Your task to perform on an android device: check the backup settings in the google photos Image 0: 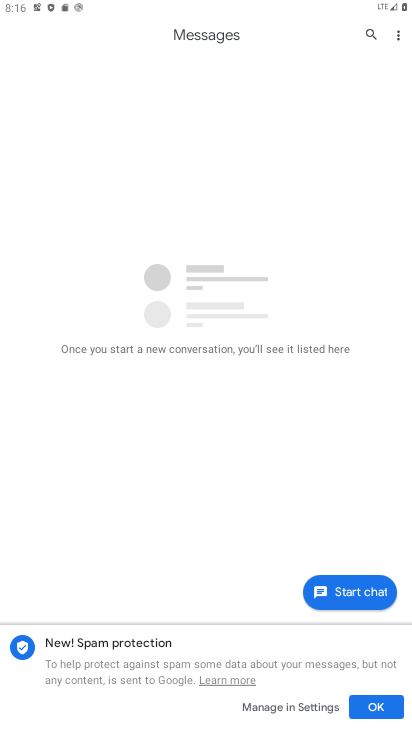
Step 0: press home button
Your task to perform on an android device: check the backup settings in the google photos Image 1: 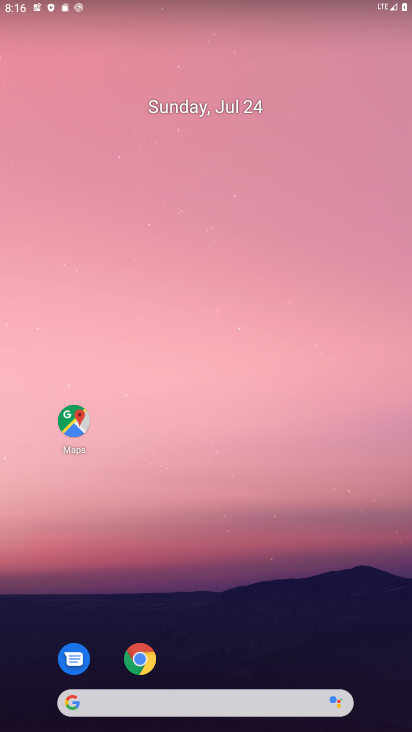
Step 1: drag from (205, 712) to (209, 226)
Your task to perform on an android device: check the backup settings in the google photos Image 2: 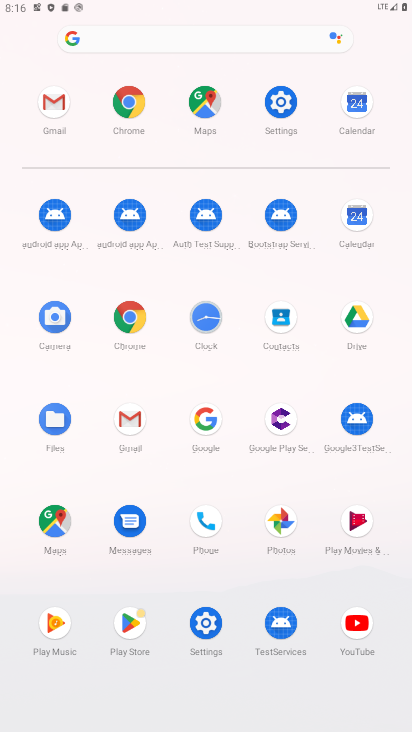
Step 2: click (285, 520)
Your task to perform on an android device: check the backup settings in the google photos Image 3: 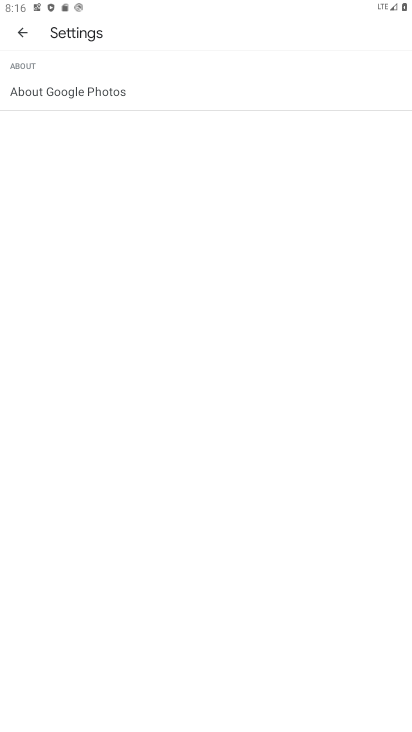
Step 3: click (20, 29)
Your task to perform on an android device: check the backup settings in the google photos Image 4: 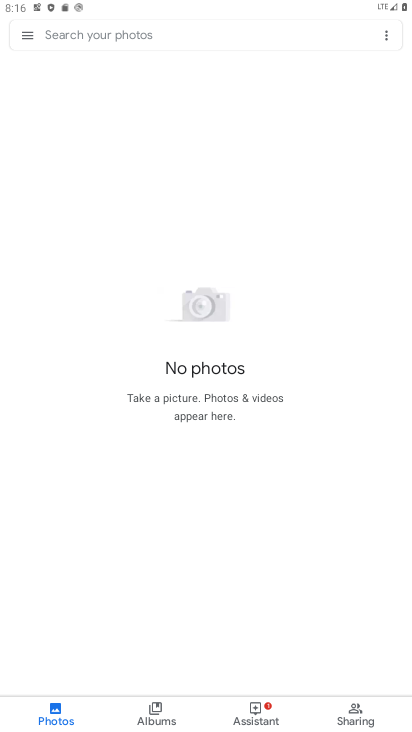
Step 4: click (28, 34)
Your task to perform on an android device: check the backup settings in the google photos Image 5: 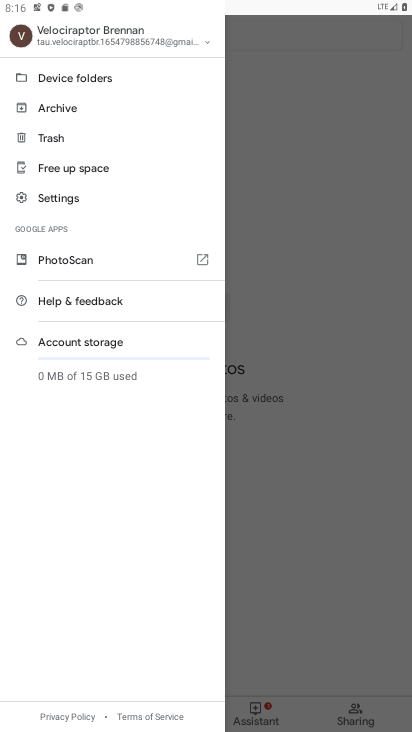
Step 5: click (49, 200)
Your task to perform on an android device: check the backup settings in the google photos Image 6: 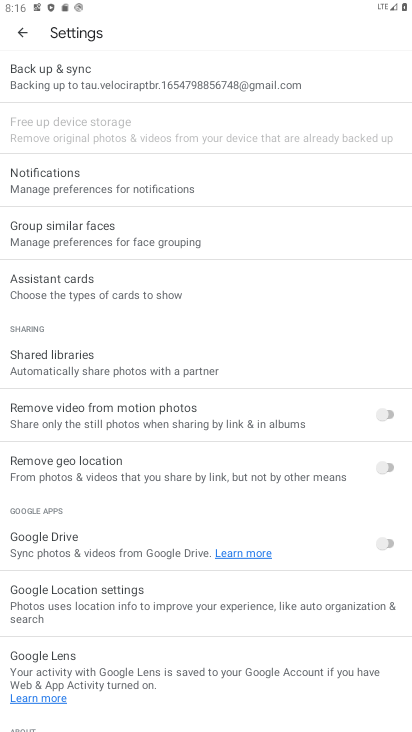
Step 6: click (61, 74)
Your task to perform on an android device: check the backup settings in the google photos Image 7: 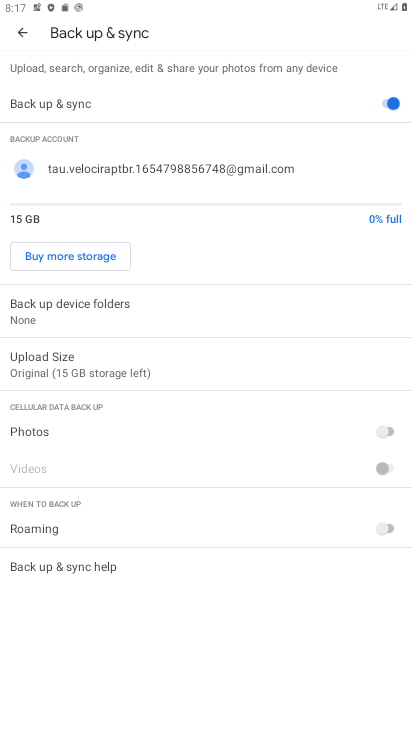
Step 7: task complete